Your task to perform on an android device: Go to Google Image 0: 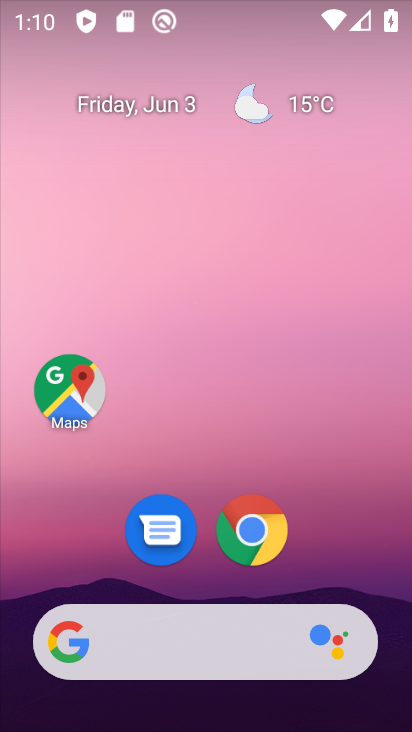
Step 0: drag from (331, 571) to (247, 4)
Your task to perform on an android device: Go to Google Image 1: 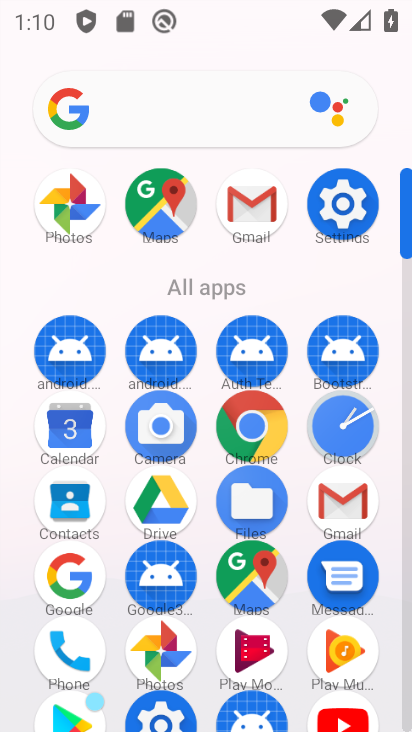
Step 1: click (74, 579)
Your task to perform on an android device: Go to Google Image 2: 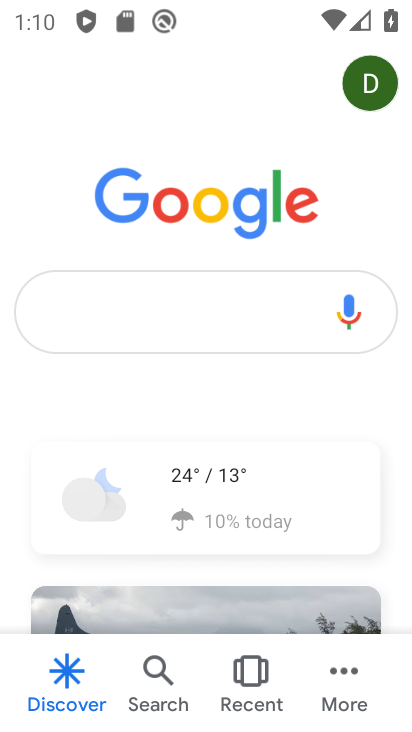
Step 2: task complete